Your task to perform on an android device: turn pop-ups on in chrome Image 0: 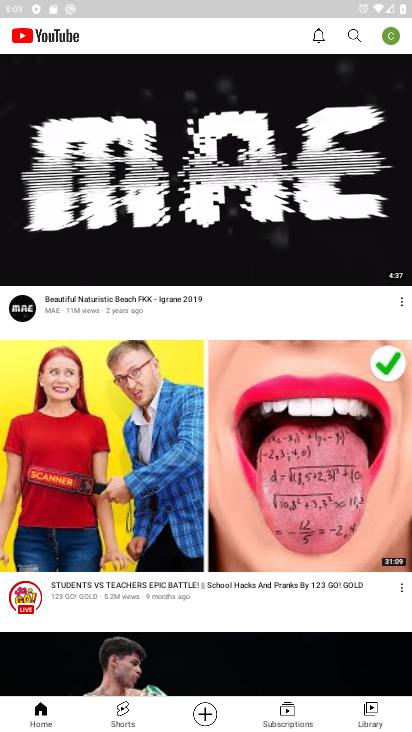
Step 0: press home button
Your task to perform on an android device: turn pop-ups on in chrome Image 1: 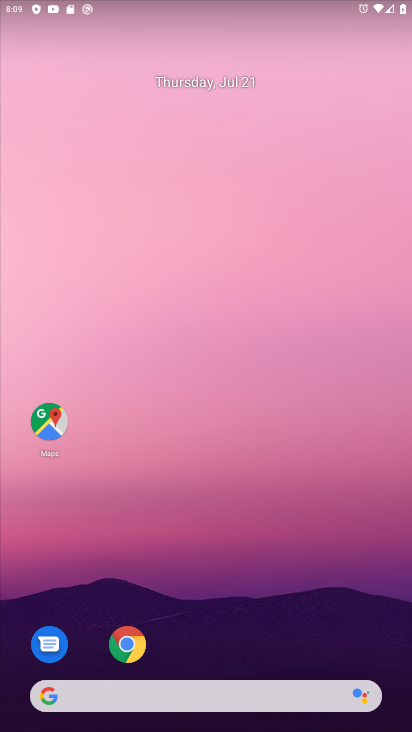
Step 1: drag from (339, 610) to (369, 103)
Your task to perform on an android device: turn pop-ups on in chrome Image 2: 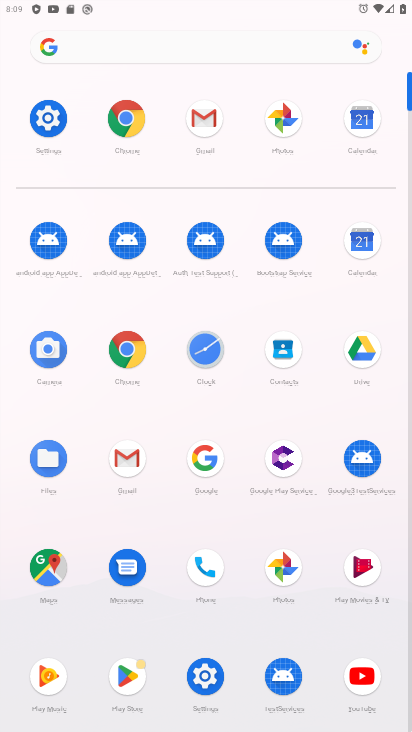
Step 2: click (129, 349)
Your task to perform on an android device: turn pop-ups on in chrome Image 3: 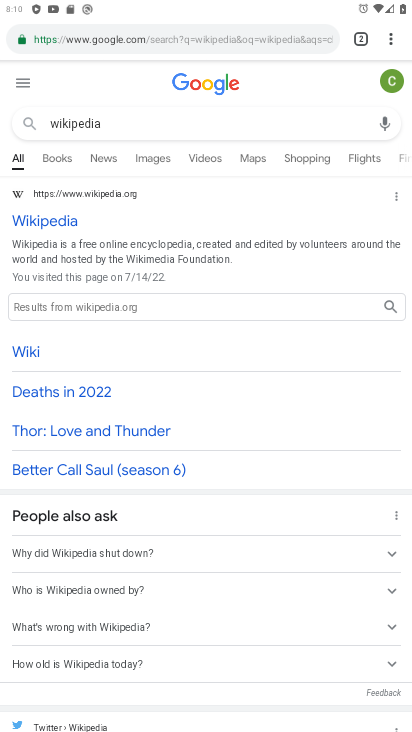
Step 3: click (390, 47)
Your task to perform on an android device: turn pop-ups on in chrome Image 4: 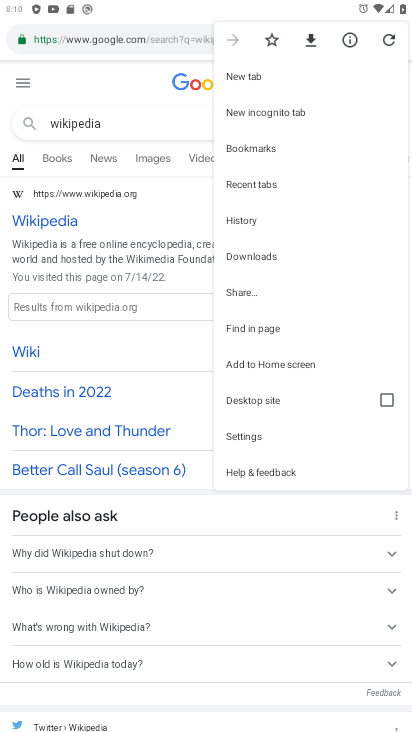
Step 4: click (264, 433)
Your task to perform on an android device: turn pop-ups on in chrome Image 5: 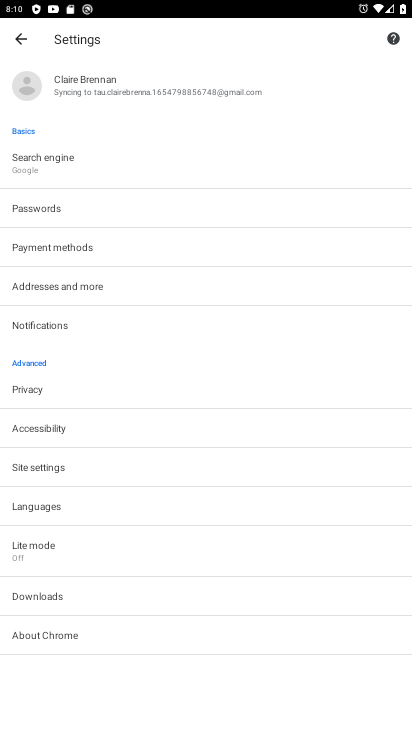
Step 5: click (226, 464)
Your task to perform on an android device: turn pop-ups on in chrome Image 6: 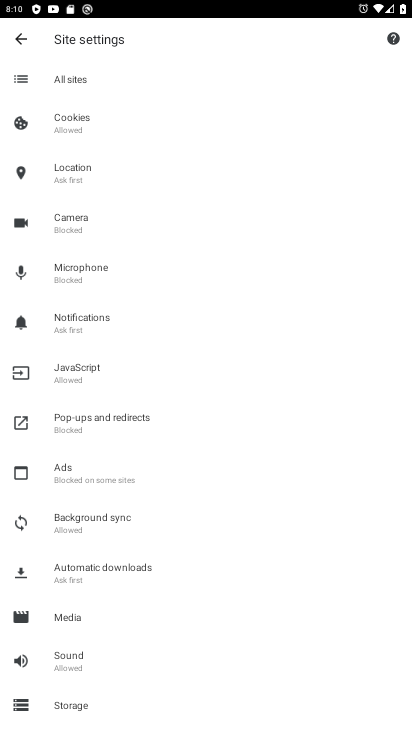
Step 6: click (157, 426)
Your task to perform on an android device: turn pop-ups on in chrome Image 7: 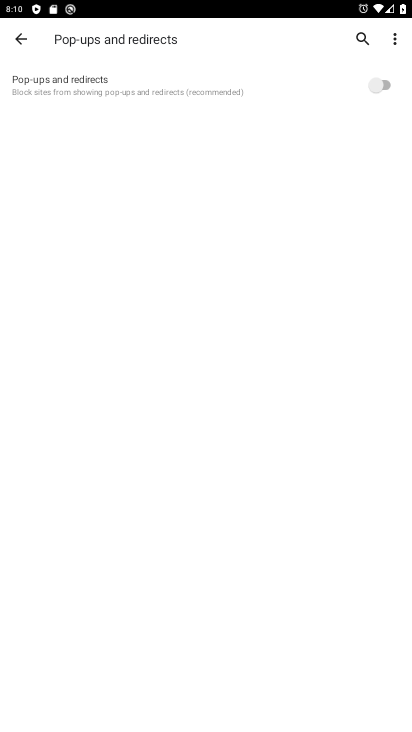
Step 7: click (375, 89)
Your task to perform on an android device: turn pop-ups on in chrome Image 8: 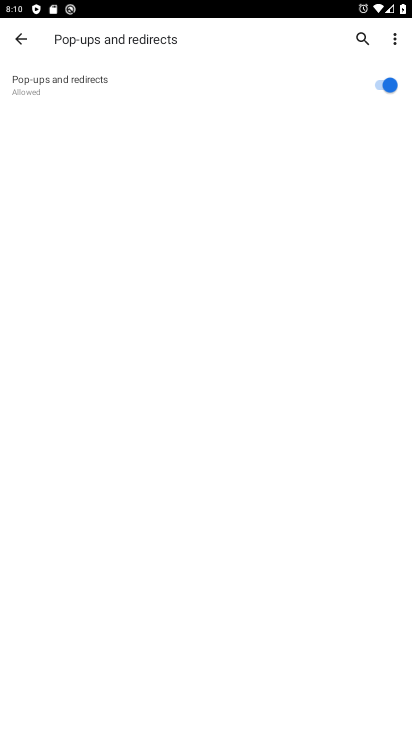
Step 8: task complete